Your task to perform on an android device: turn on improve location accuracy Image 0: 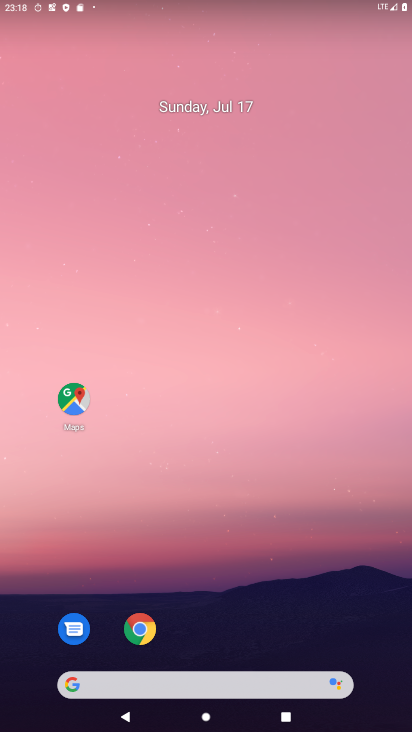
Step 0: drag from (247, 712) to (177, 13)
Your task to perform on an android device: turn on improve location accuracy Image 1: 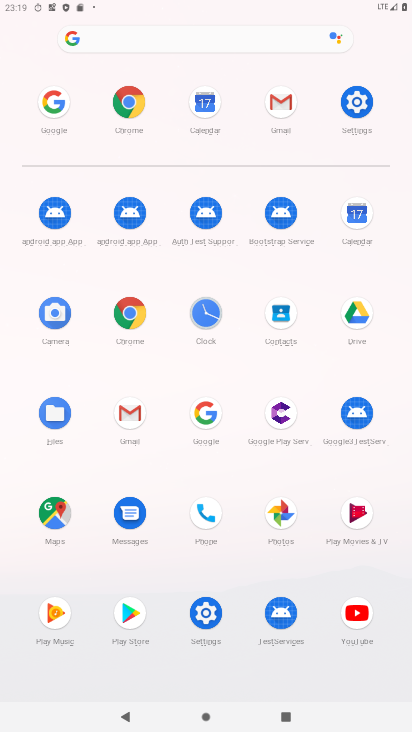
Step 1: click (358, 98)
Your task to perform on an android device: turn on improve location accuracy Image 2: 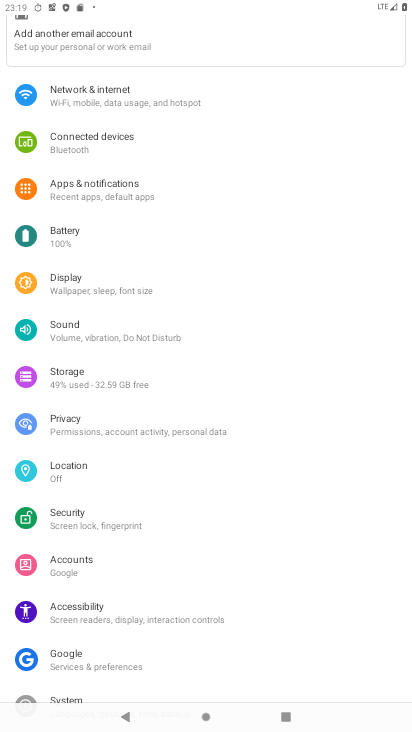
Step 2: click (69, 470)
Your task to perform on an android device: turn on improve location accuracy Image 3: 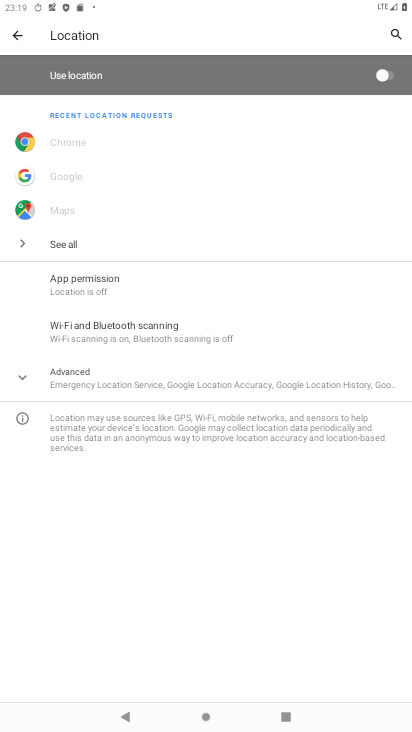
Step 3: click (115, 377)
Your task to perform on an android device: turn on improve location accuracy Image 4: 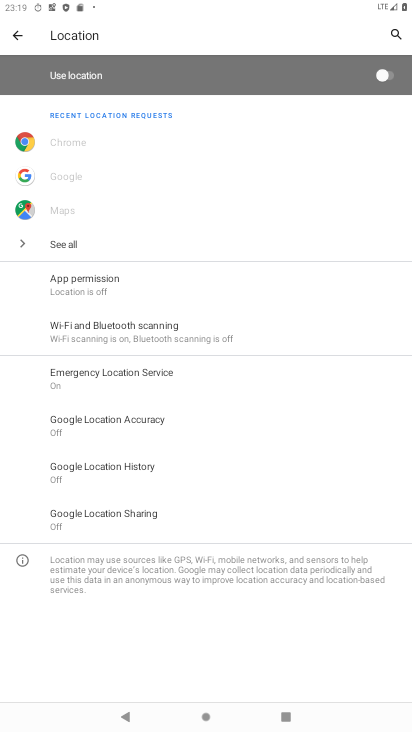
Step 4: click (94, 426)
Your task to perform on an android device: turn on improve location accuracy Image 5: 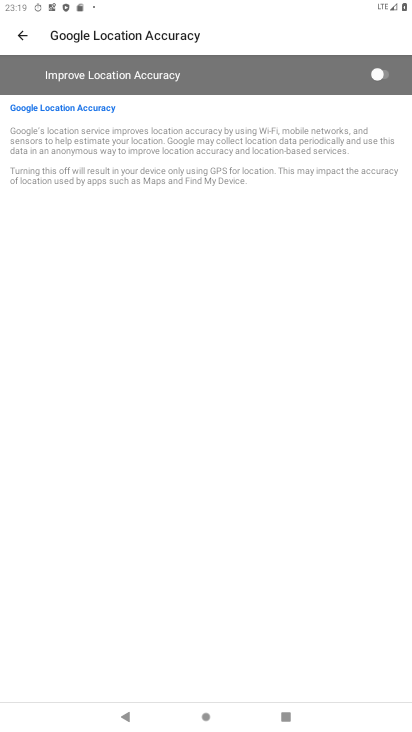
Step 5: click (382, 74)
Your task to perform on an android device: turn on improve location accuracy Image 6: 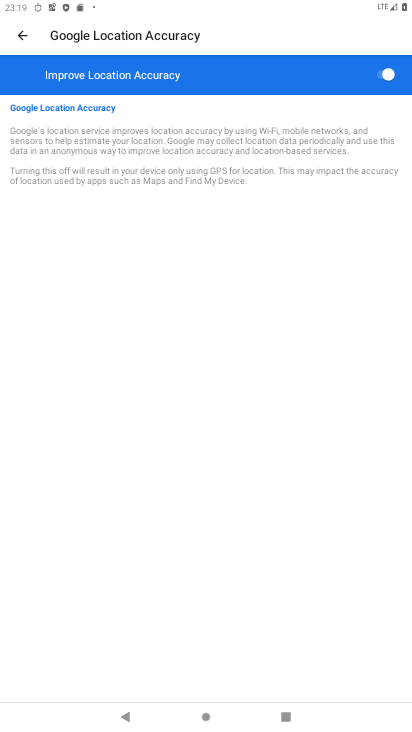
Step 6: task complete